Your task to perform on an android device: Go to CNN.com Image 0: 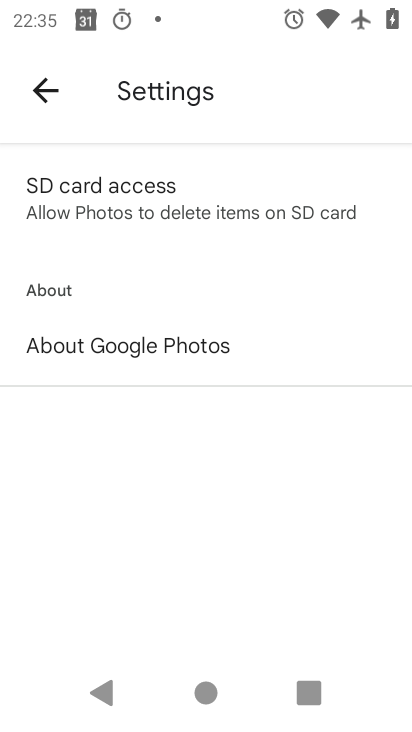
Step 0: click (296, 718)
Your task to perform on an android device: Go to CNN.com Image 1: 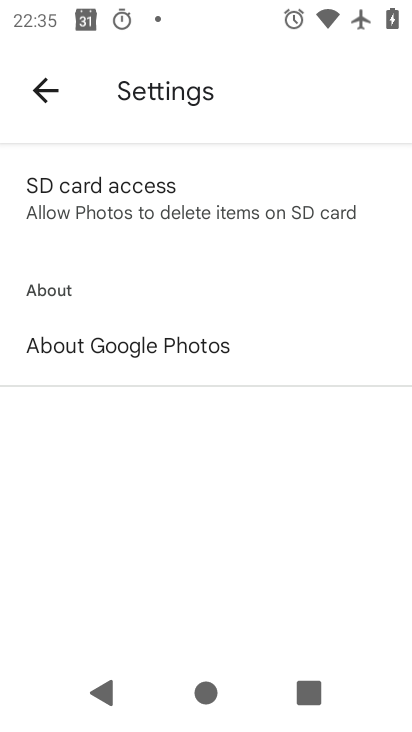
Step 1: drag from (156, 433) to (152, 240)
Your task to perform on an android device: Go to CNN.com Image 2: 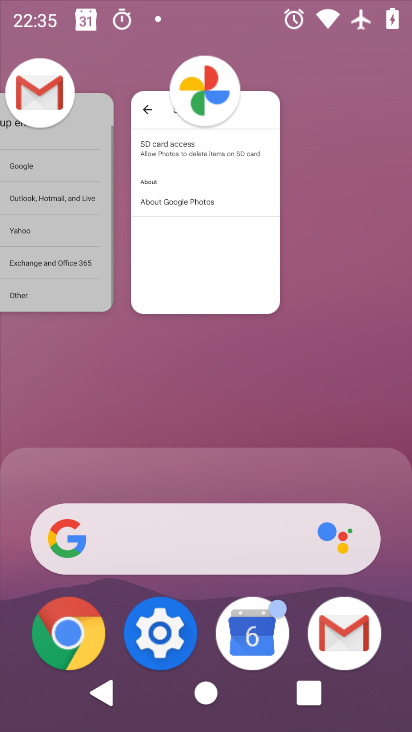
Step 2: click (191, 548)
Your task to perform on an android device: Go to CNN.com Image 3: 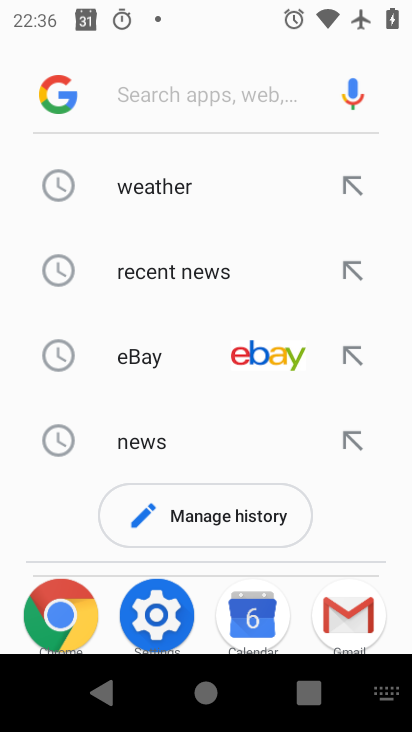
Step 3: type "CNN.com"
Your task to perform on an android device: Go to CNN.com Image 4: 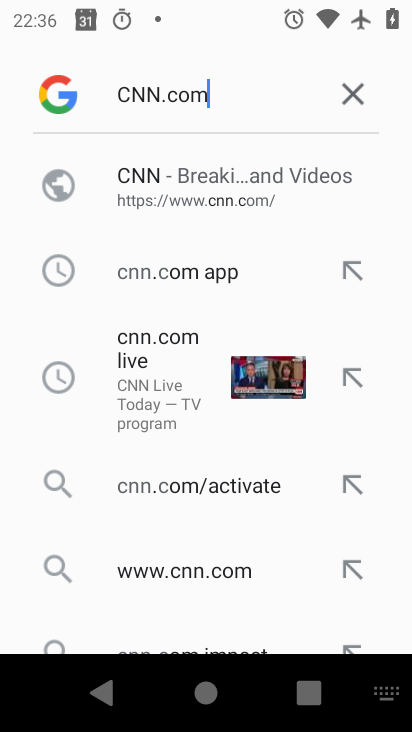
Step 4: type ""
Your task to perform on an android device: Go to CNN.com Image 5: 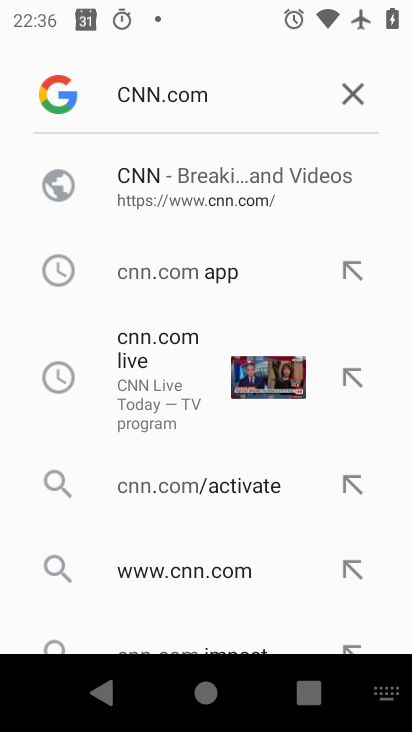
Step 5: click (183, 180)
Your task to perform on an android device: Go to CNN.com Image 6: 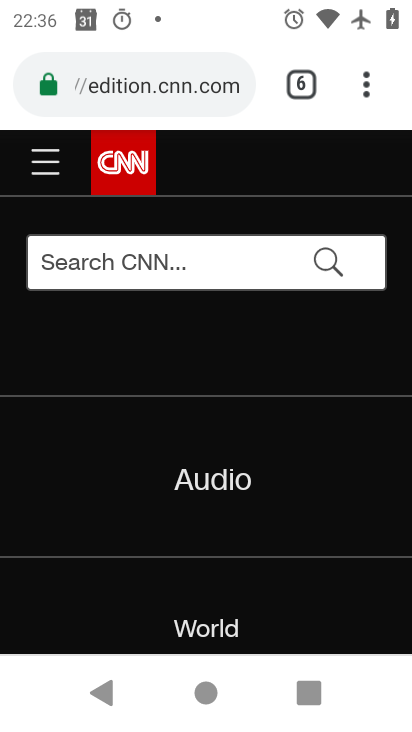
Step 6: task complete